Your task to perform on an android device: empty trash in google photos Image 0: 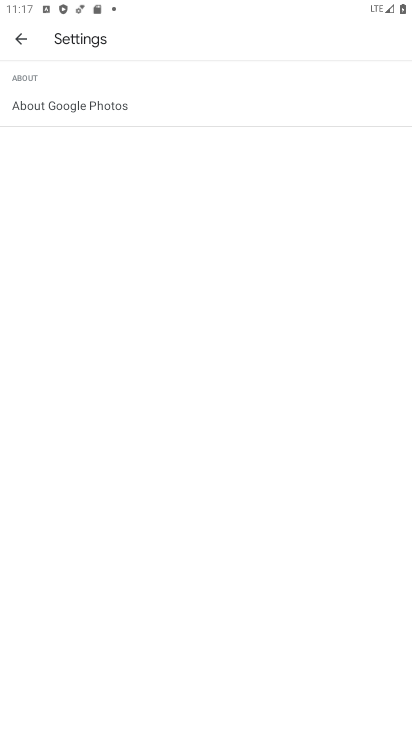
Step 0: press home button
Your task to perform on an android device: empty trash in google photos Image 1: 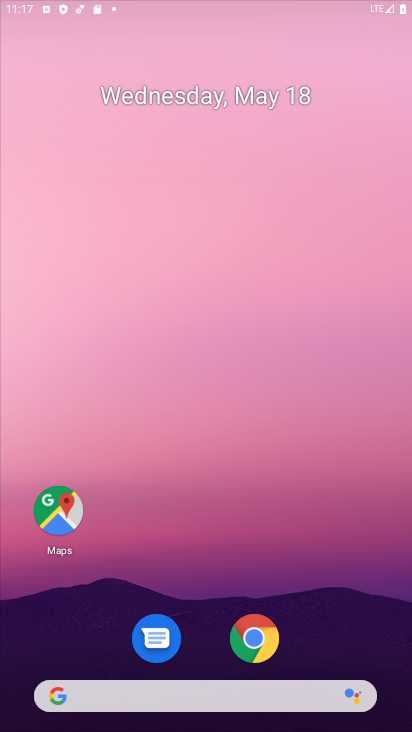
Step 1: drag from (331, 632) to (336, 28)
Your task to perform on an android device: empty trash in google photos Image 2: 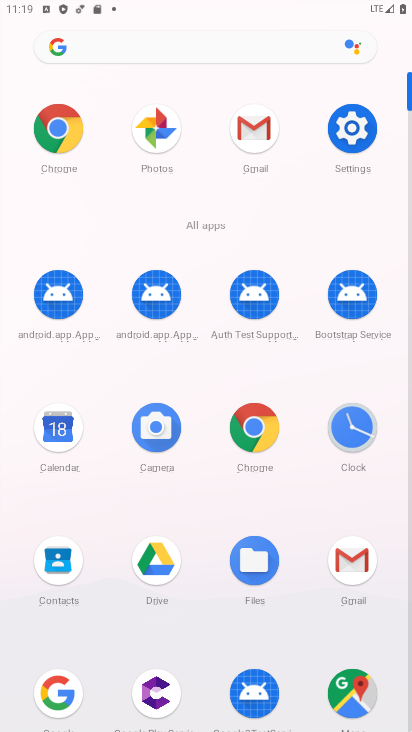
Step 2: drag from (189, 641) to (188, 332)
Your task to perform on an android device: empty trash in google photos Image 3: 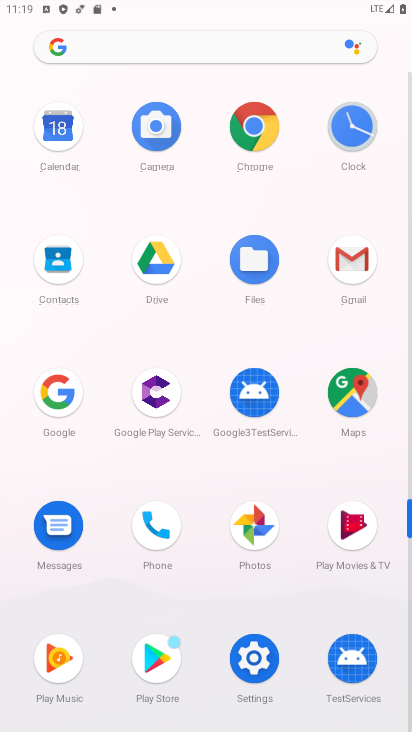
Step 3: click (259, 547)
Your task to perform on an android device: empty trash in google photos Image 4: 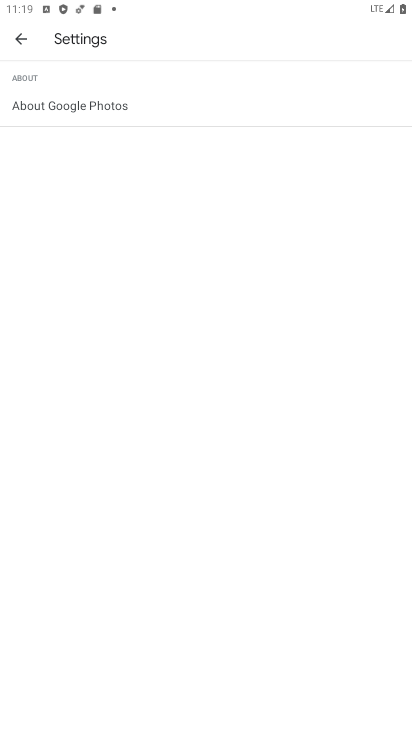
Step 4: press back button
Your task to perform on an android device: empty trash in google photos Image 5: 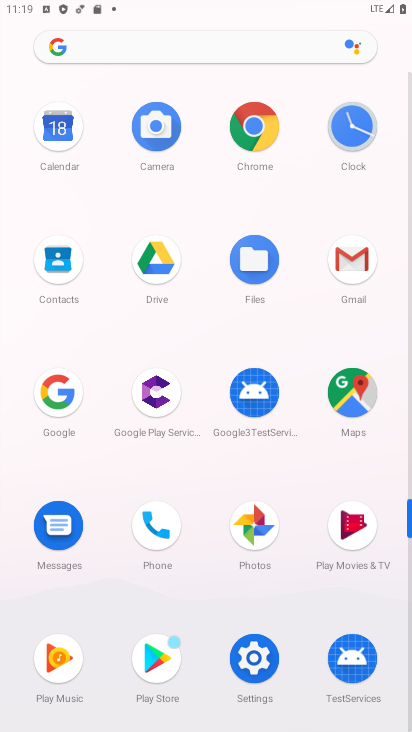
Step 5: click (285, 530)
Your task to perform on an android device: empty trash in google photos Image 6: 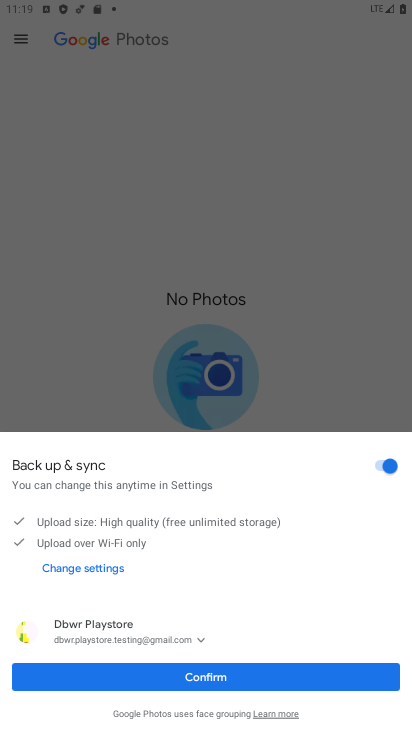
Step 6: click (275, 677)
Your task to perform on an android device: empty trash in google photos Image 7: 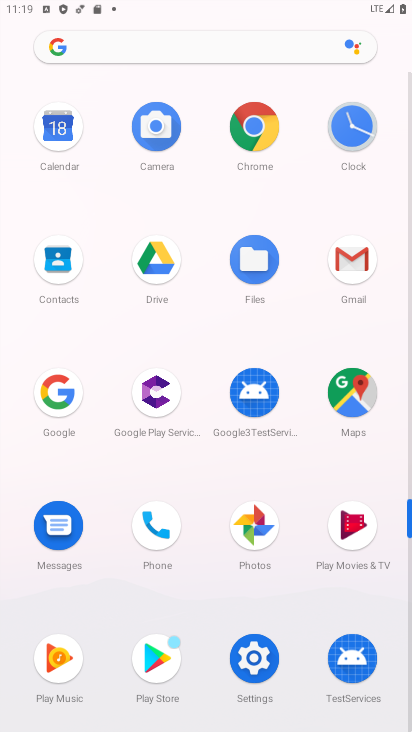
Step 7: click (236, 558)
Your task to perform on an android device: empty trash in google photos Image 8: 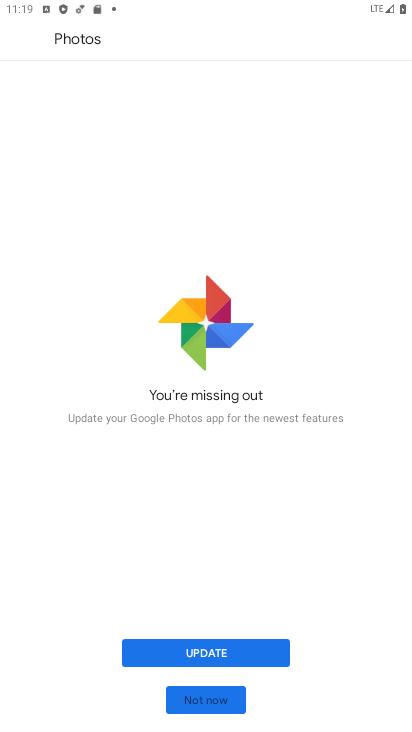
Step 8: click (197, 661)
Your task to perform on an android device: empty trash in google photos Image 9: 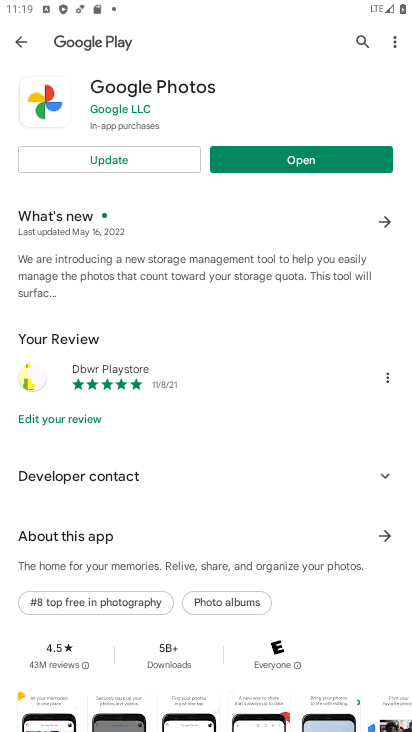
Step 9: click (50, 164)
Your task to perform on an android device: empty trash in google photos Image 10: 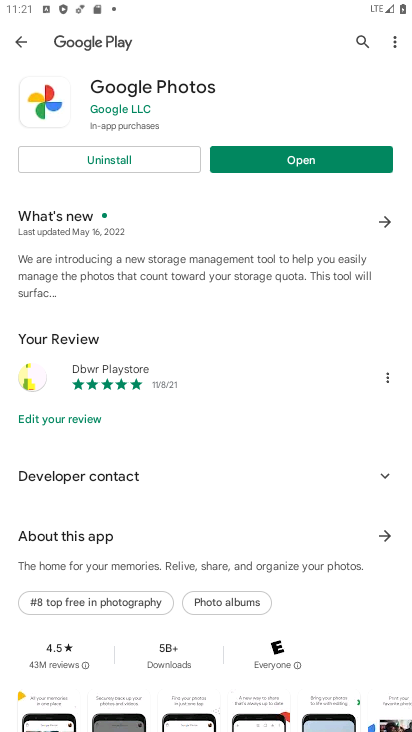
Step 10: click (240, 154)
Your task to perform on an android device: empty trash in google photos Image 11: 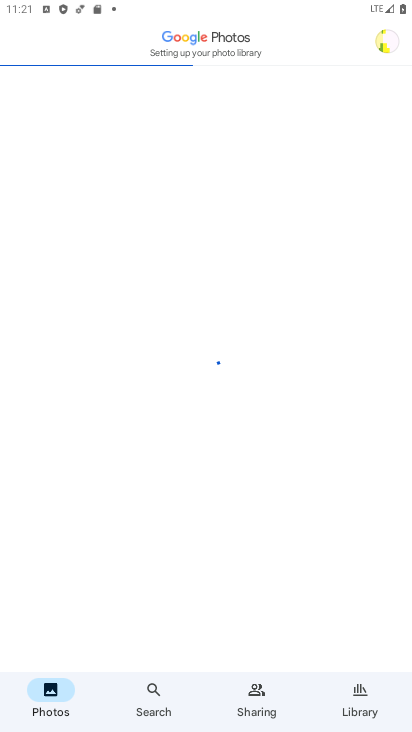
Step 11: click (353, 691)
Your task to perform on an android device: empty trash in google photos Image 12: 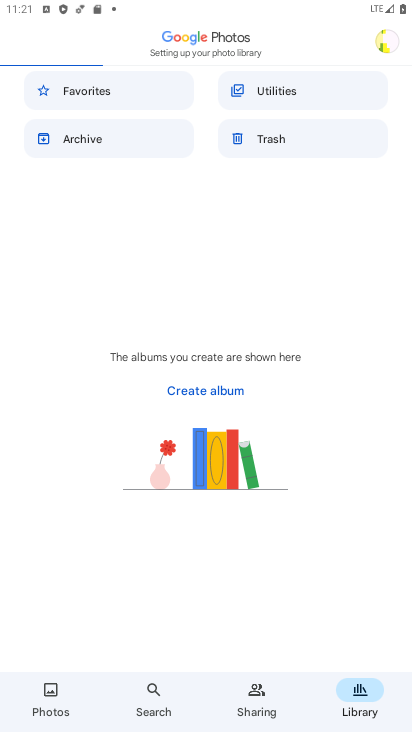
Step 12: click (297, 145)
Your task to perform on an android device: empty trash in google photos Image 13: 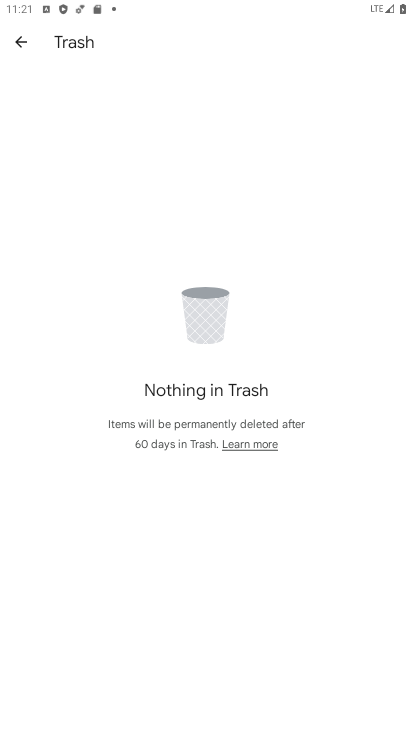
Step 13: task complete